Your task to perform on an android device: star an email in the gmail app Image 0: 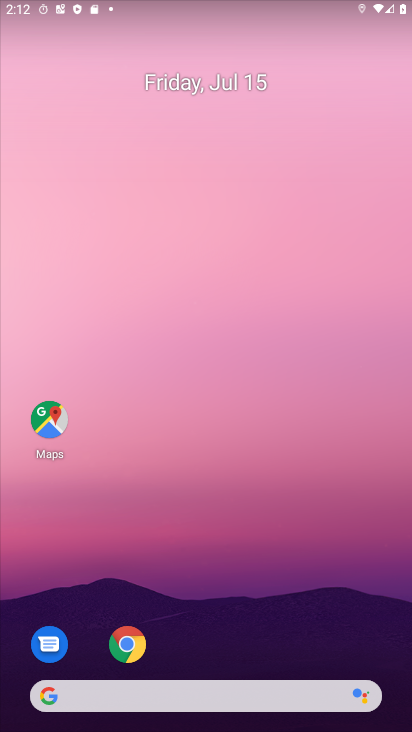
Step 0: drag from (397, 642) to (335, 23)
Your task to perform on an android device: star an email in the gmail app Image 1: 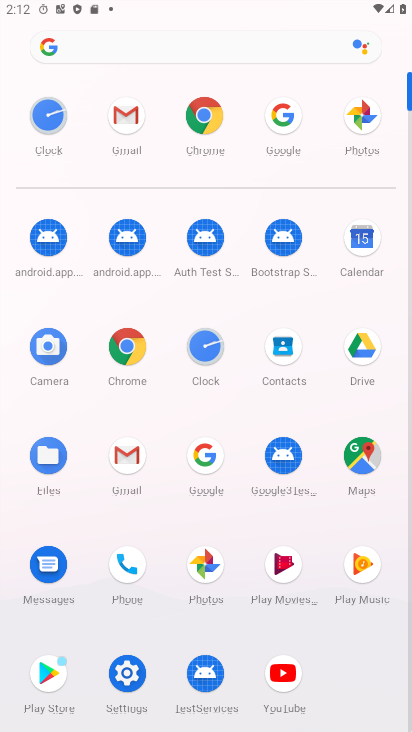
Step 1: click (127, 442)
Your task to perform on an android device: star an email in the gmail app Image 2: 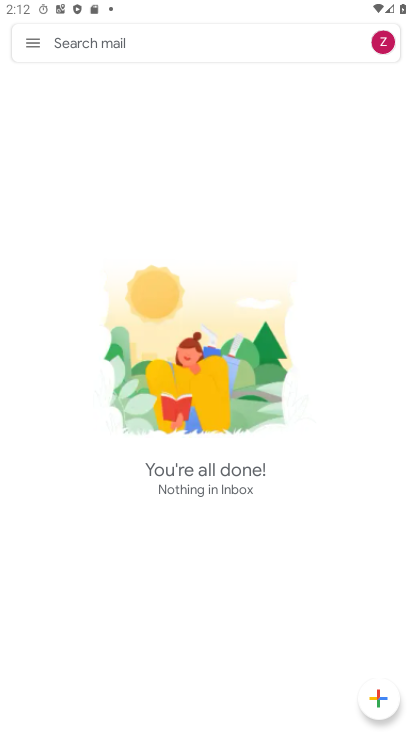
Step 2: task complete